Your task to perform on an android device: Go to location settings Image 0: 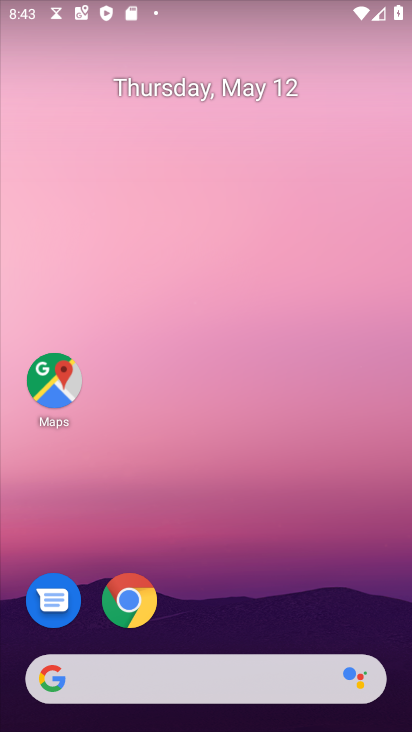
Step 0: drag from (173, 629) to (95, 133)
Your task to perform on an android device: Go to location settings Image 1: 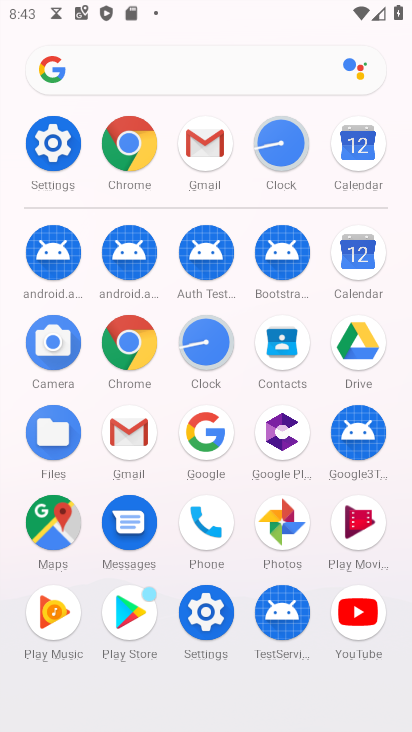
Step 1: click (205, 632)
Your task to perform on an android device: Go to location settings Image 2: 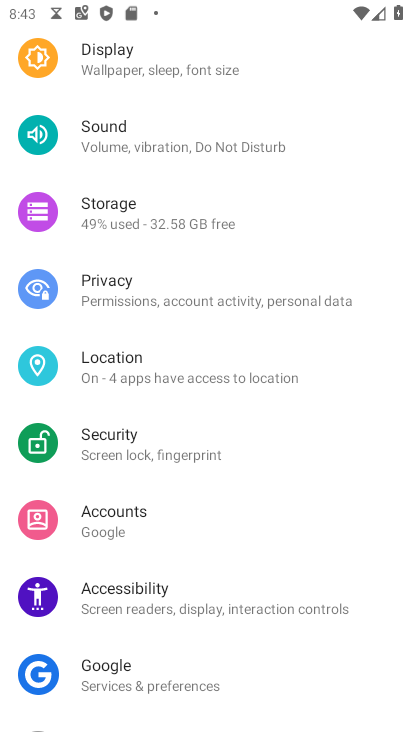
Step 2: click (88, 379)
Your task to perform on an android device: Go to location settings Image 3: 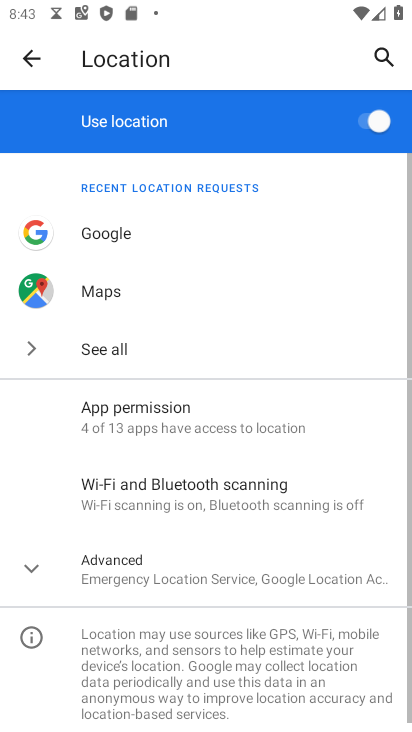
Step 3: task complete